Your task to perform on an android device: Search for pizza restaurants on Maps Image 0: 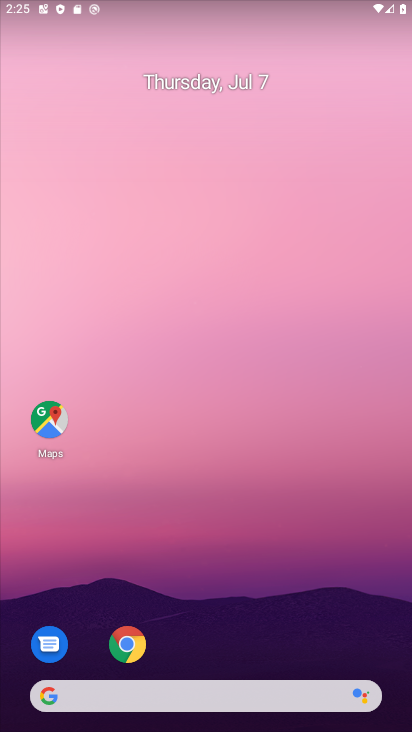
Step 0: press home button
Your task to perform on an android device: Search for pizza restaurants on Maps Image 1: 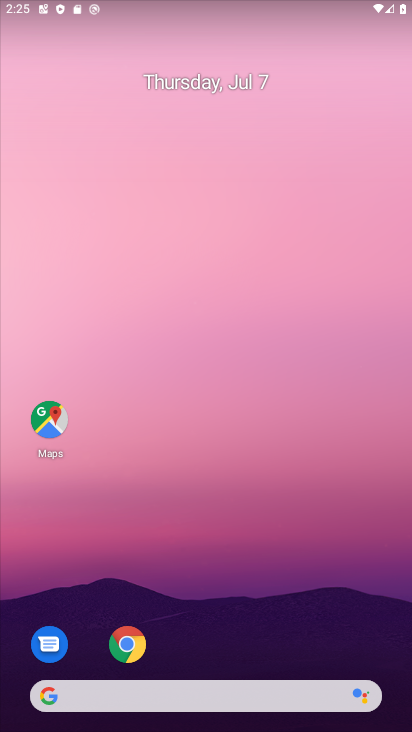
Step 1: click (45, 425)
Your task to perform on an android device: Search for pizza restaurants on Maps Image 2: 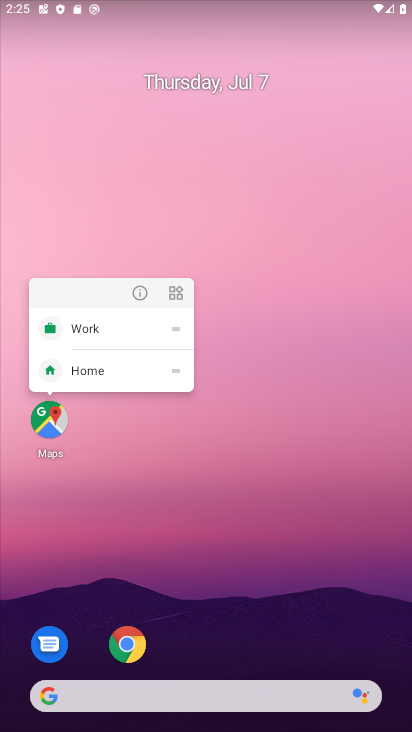
Step 2: click (235, 451)
Your task to perform on an android device: Search for pizza restaurants on Maps Image 3: 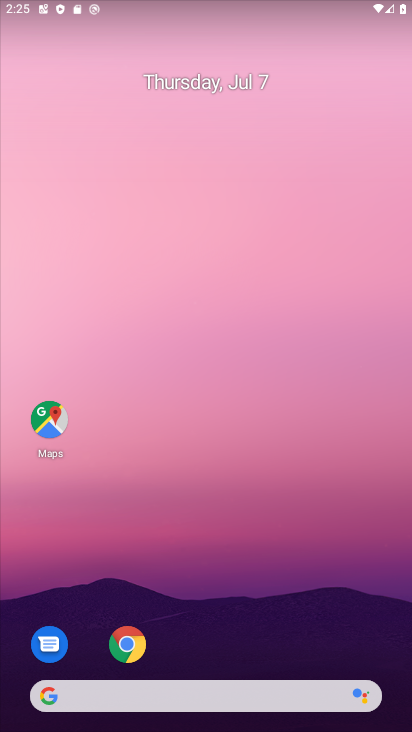
Step 3: drag from (270, 637) to (231, 81)
Your task to perform on an android device: Search for pizza restaurants on Maps Image 4: 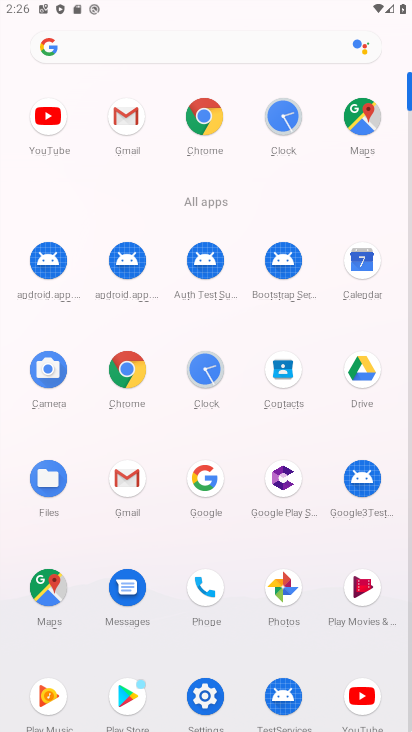
Step 4: click (366, 121)
Your task to perform on an android device: Search for pizza restaurants on Maps Image 5: 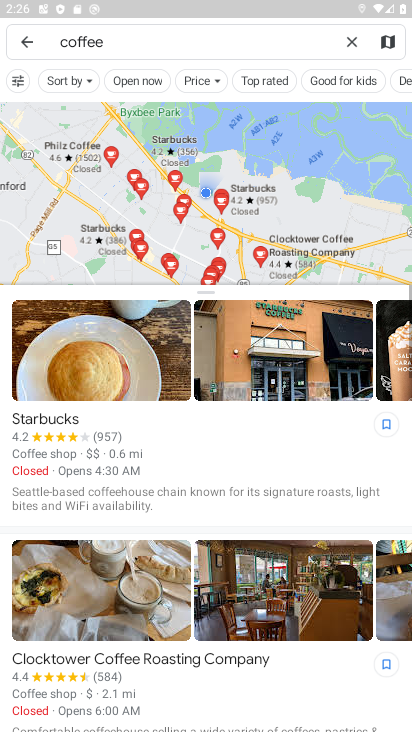
Step 5: click (349, 47)
Your task to perform on an android device: Search for pizza restaurants on Maps Image 6: 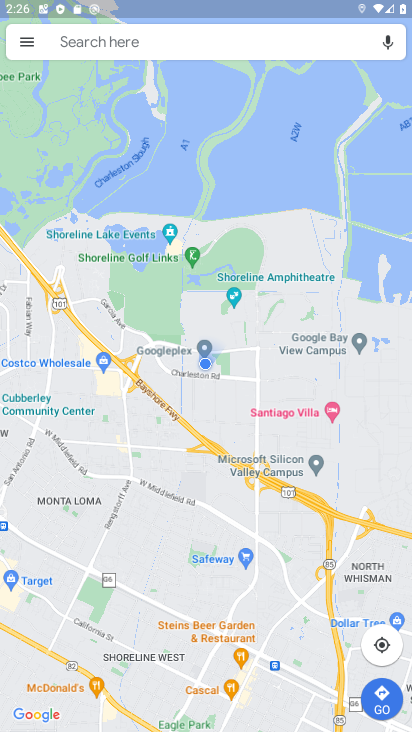
Step 6: click (127, 39)
Your task to perform on an android device: Search for pizza restaurants on Maps Image 7: 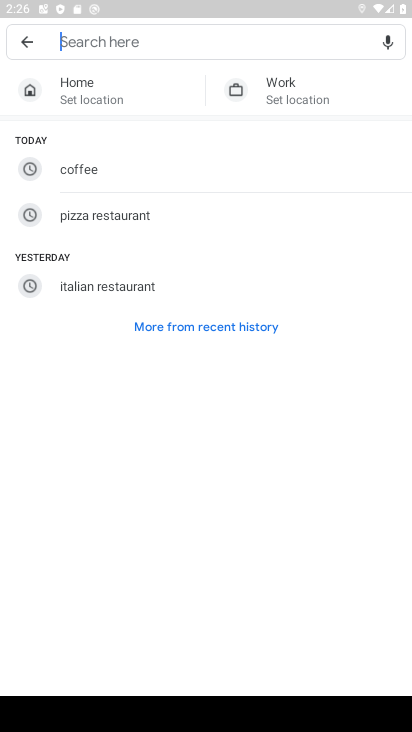
Step 7: click (98, 214)
Your task to perform on an android device: Search for pizza restaurants on Maps Image 8: 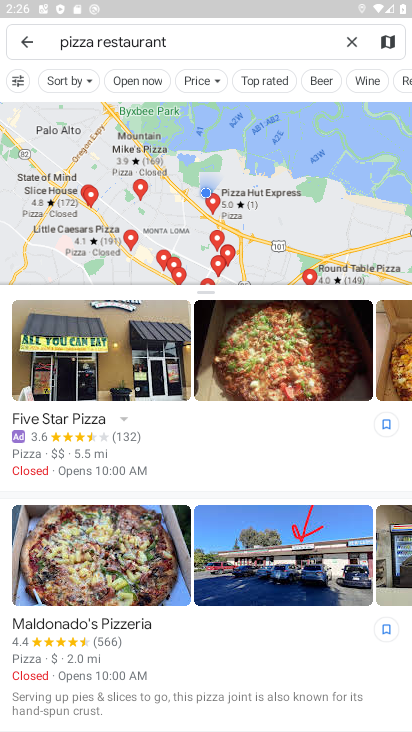
Step 8: task complete